Your task to perform on an android device: install app "Viber Messenger" Image 0: 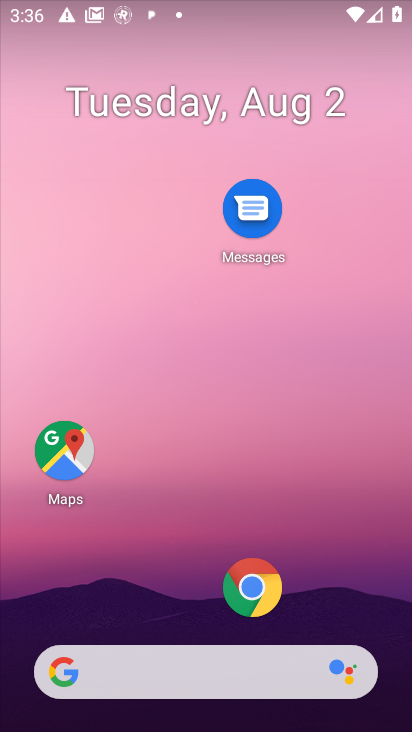
Step 0: drag from (165, 594) to (170, 165)
Your task to perform on an android device: install app "Viber Messenger" Image 1: 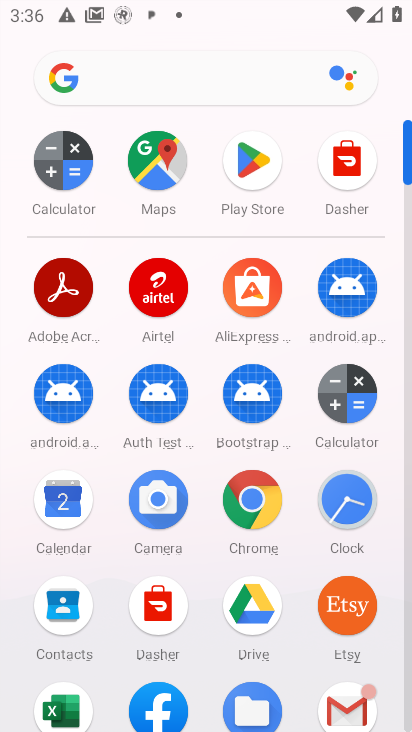
Step 1: click (257, 168)
Your task to perform on an android device: install app "Viber Messenger" Image 2: 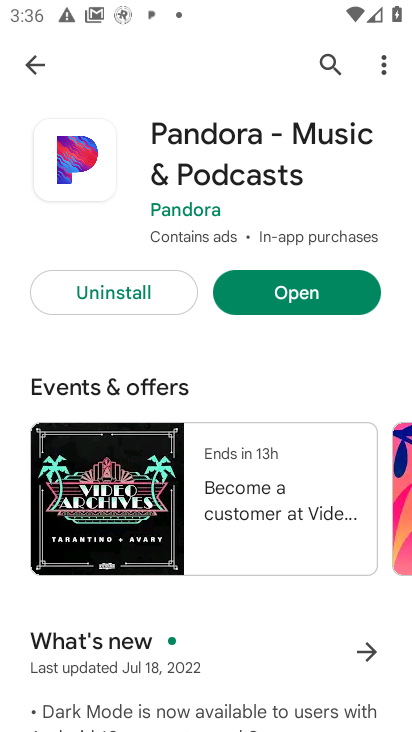
Step 2: click (339, 67)
Your task to perform on an android device: install app "Viber Messenger" Image 3: 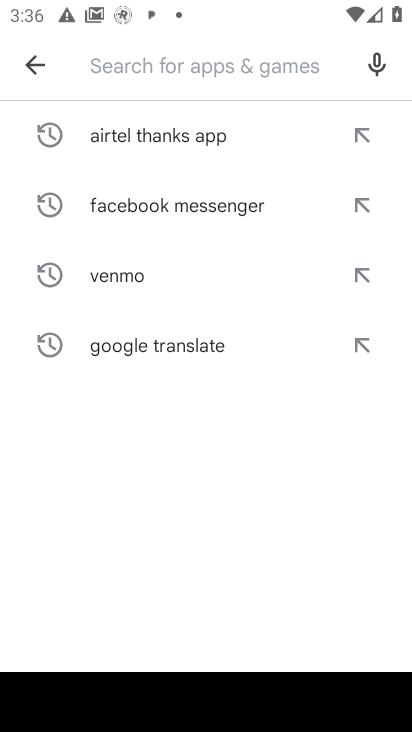
Step 3: type "Viber Messenger"
Your task to perform on an android device: install app "Viber Messenger" Image 4: 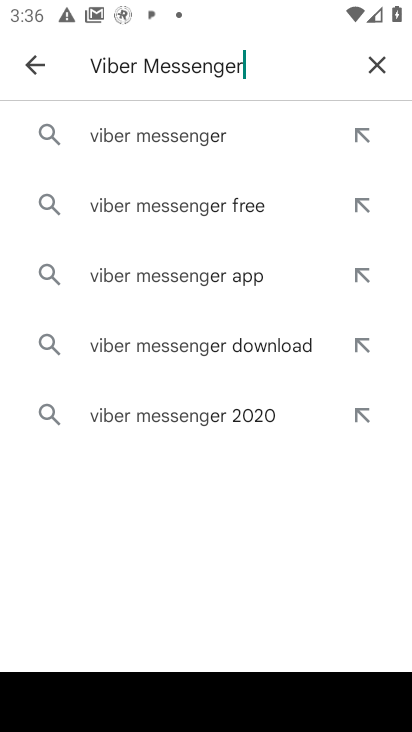
Step 4: type ""
Your task to perform on an android device: install app "Viber Messenger" Image 5: 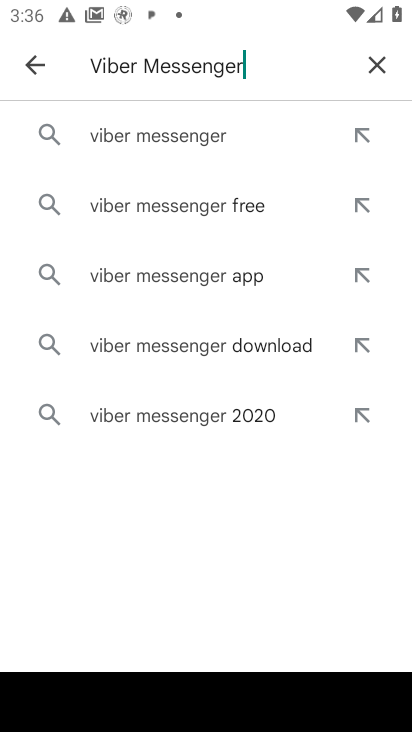
Step 5: click (226, 127)
Your task to perform on an android device: install app "Viber Messenger" Image 6: 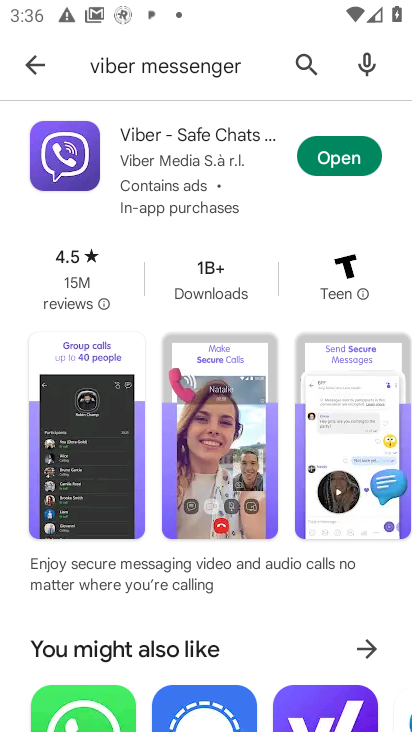
Step 6: task complete